Your task to perform on an android device: Go to calendar. Show me events next week Image 0: 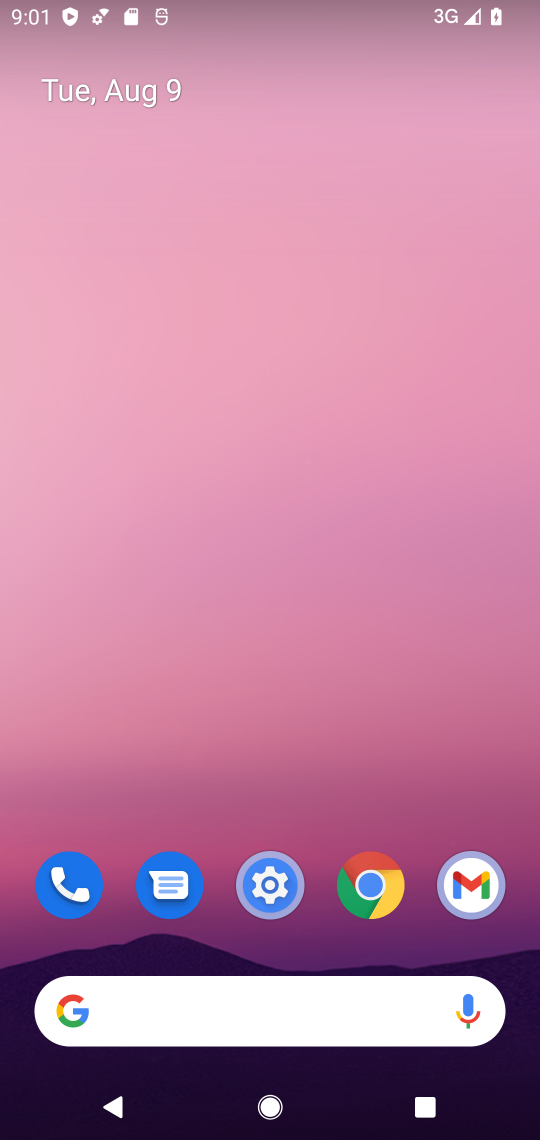
Step 0: press home button
Your task to perform on an android device: Go to calendar. Show me events next week Image 1: 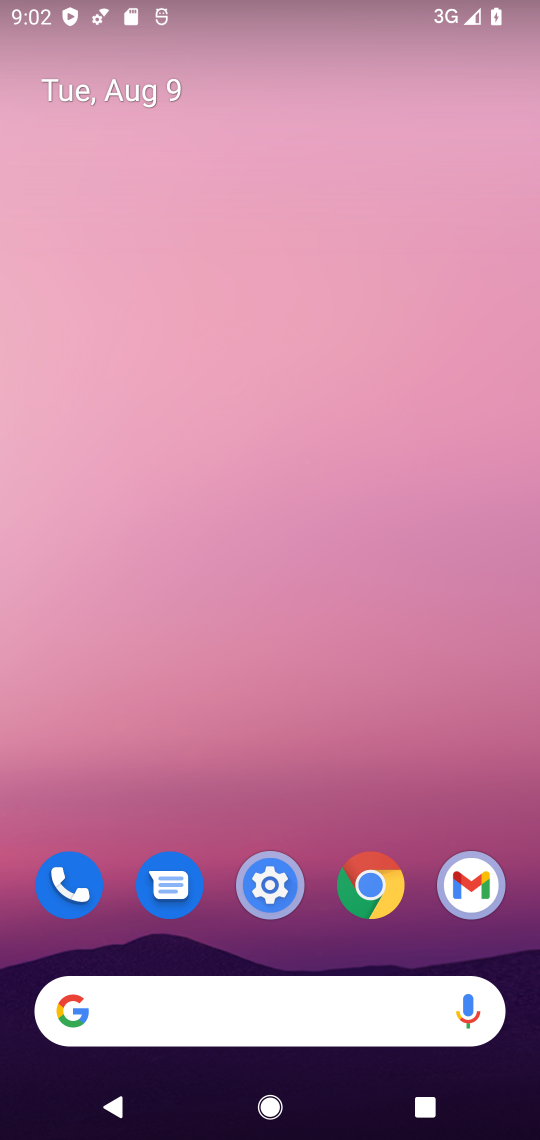
Step 1: drag from (292, 712) to (283, 133)
Your task to perform on an android device: Go to calendar. Show me events next week Image 2: 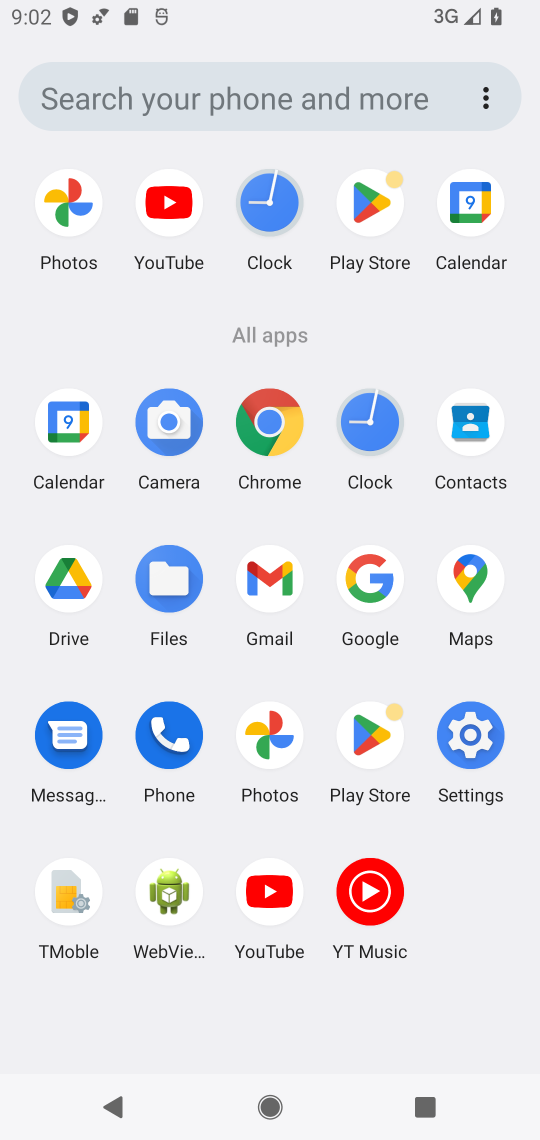
Step 2: click (464, 196)
Your task to perform on an android device: Go to calendar. Show me events next week Image 3: 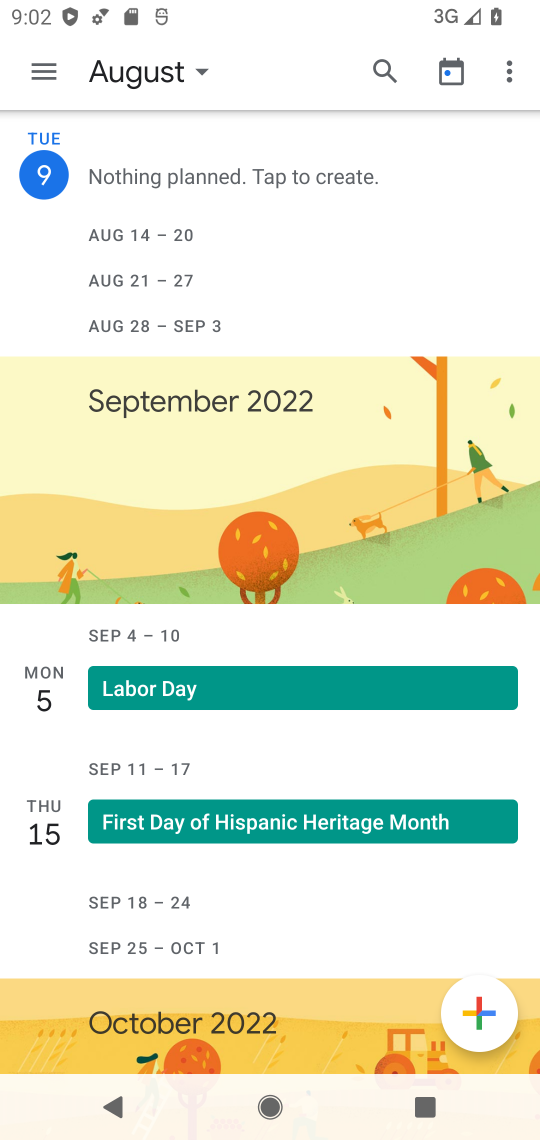
Step 3: click (44, 61)
Your task to perform on an android device: Go to calendar. Show me events next week Image 4: 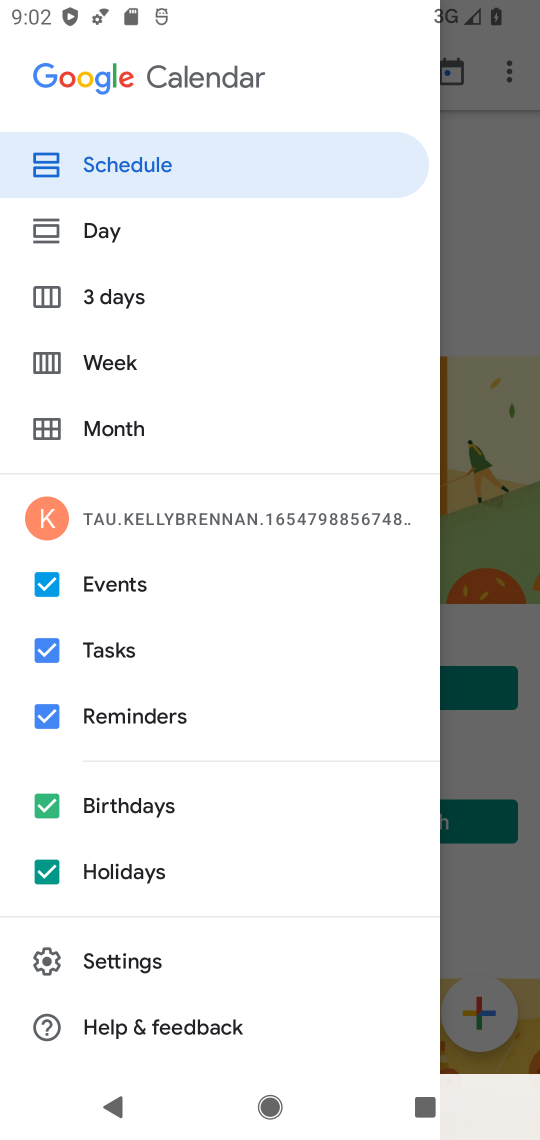
Step 4: click (44, 862)
Your task to perform on an android device: Go to calendar. Show me events next week Image 5: 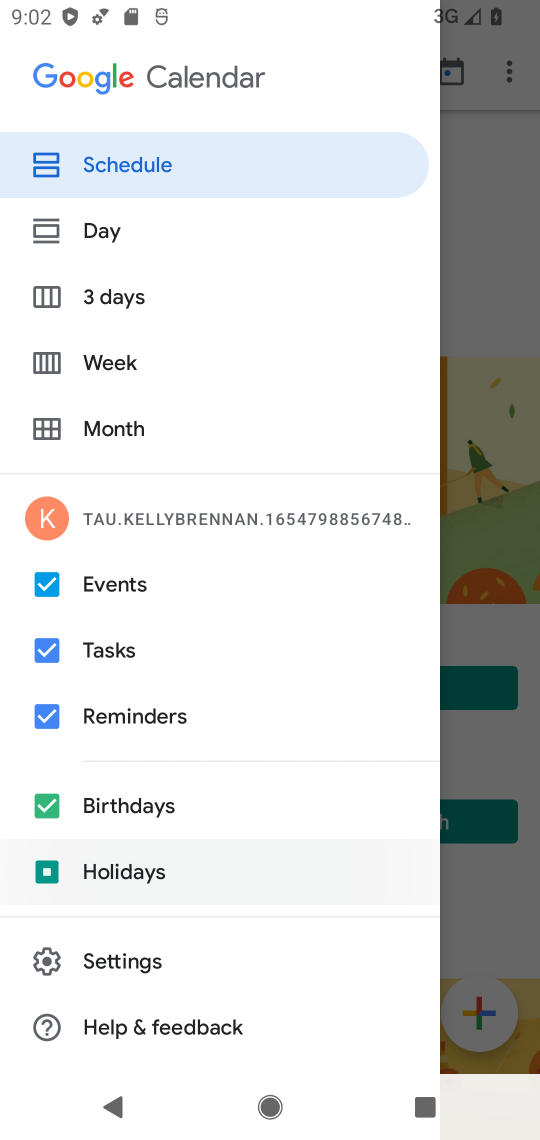
Step 5: click (41, 807)
Your task to perform on an android device: Go to calendar. Show me events next week Image 6: 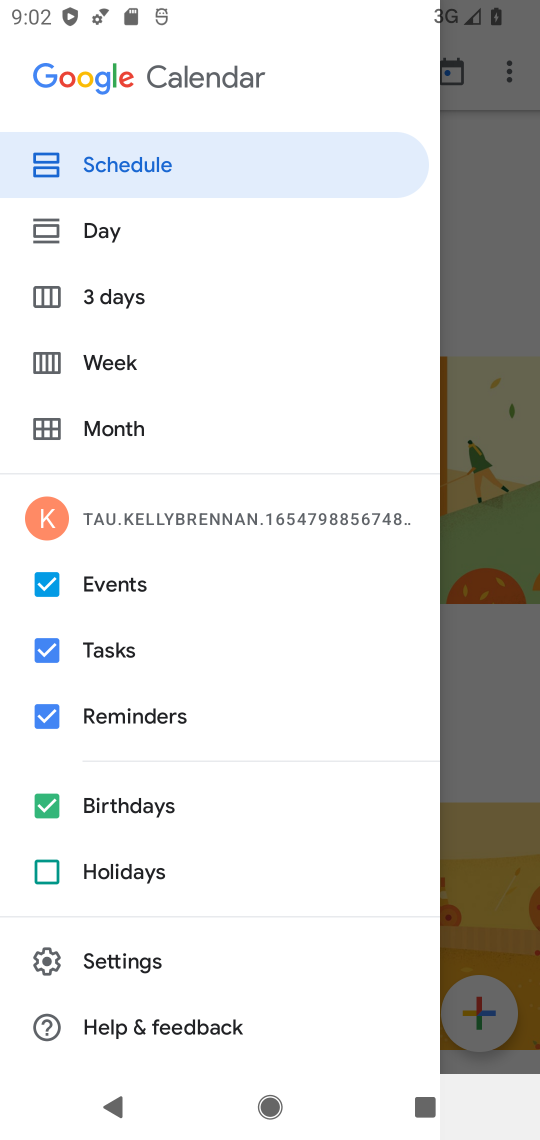
Step 6: click (50, 717)
Your task to perform on an android device: Go to calendar. Show me events next week Image 7: 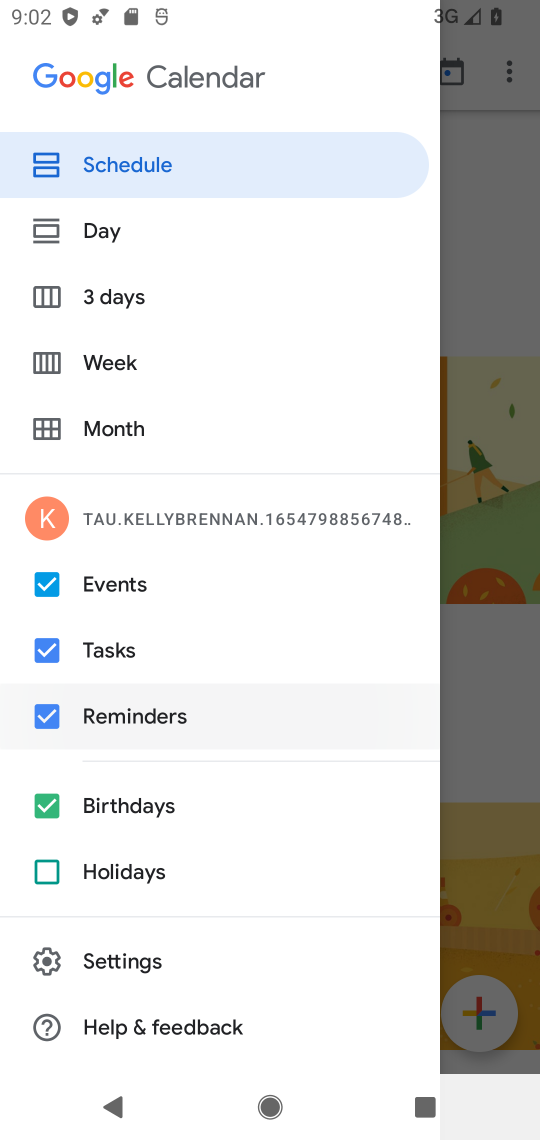
Step 7: click (44, 648)
Your task to perform on an android device: Go to calendar. Show me events next week Image 8: 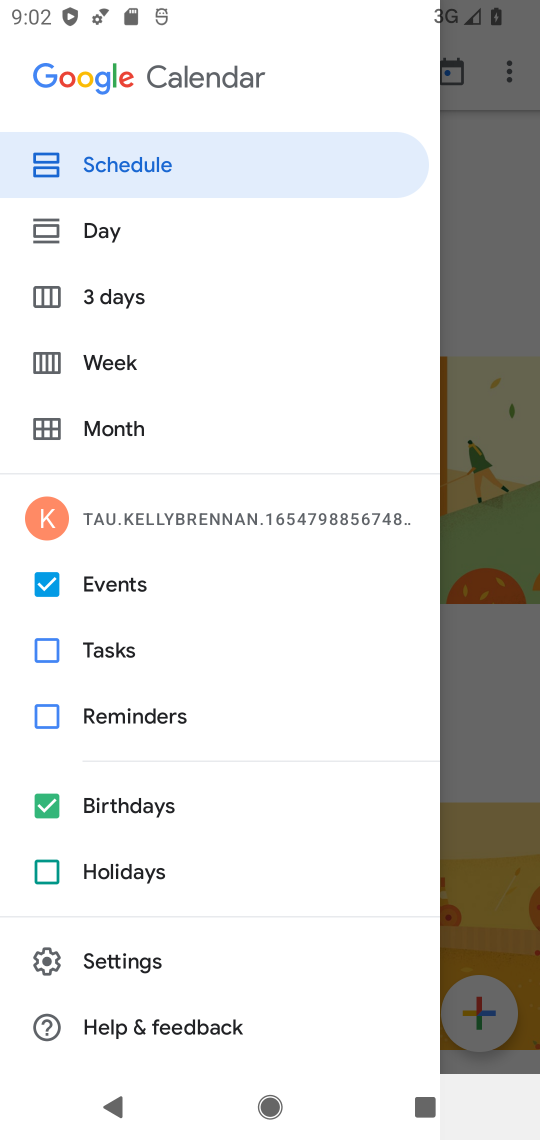
Step 8: click (45, 800)
Your task to perform on an android device: Go to calendar. Show me events next week Image 9: 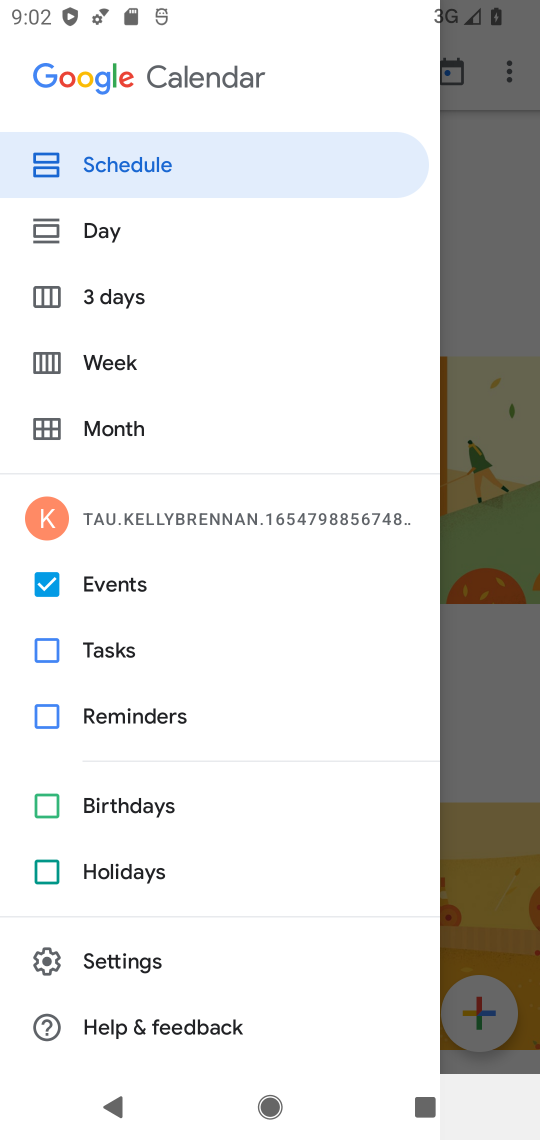
Step 9: click (75, 366)
Your task to perform on an android device: Go to calendar. Show me events next week Image 10: 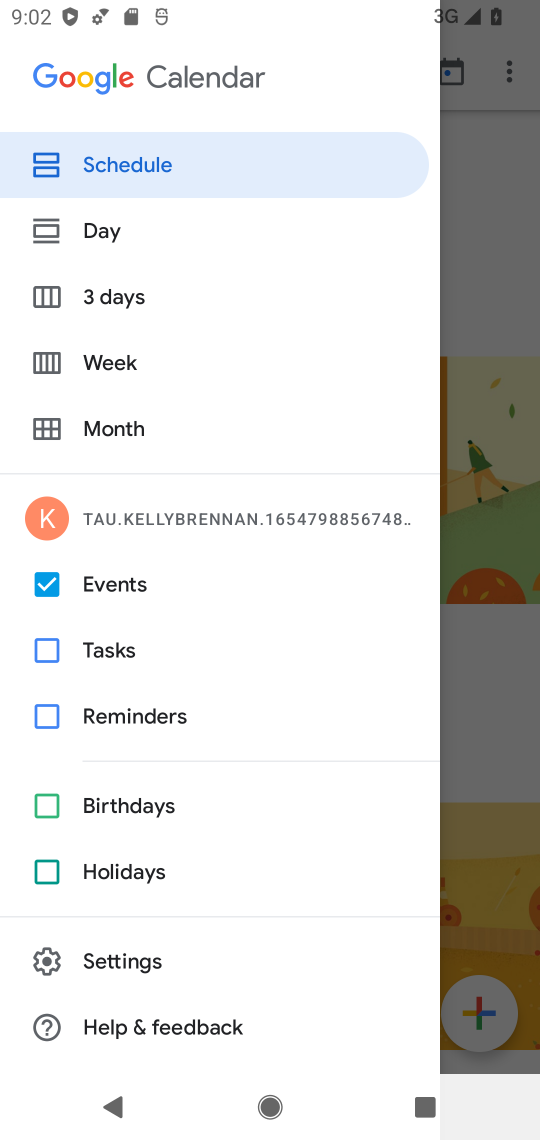
Step 10: click (138, 356)
Your task to perform on an android device: Go to calendar. Show me events next week Image 11: 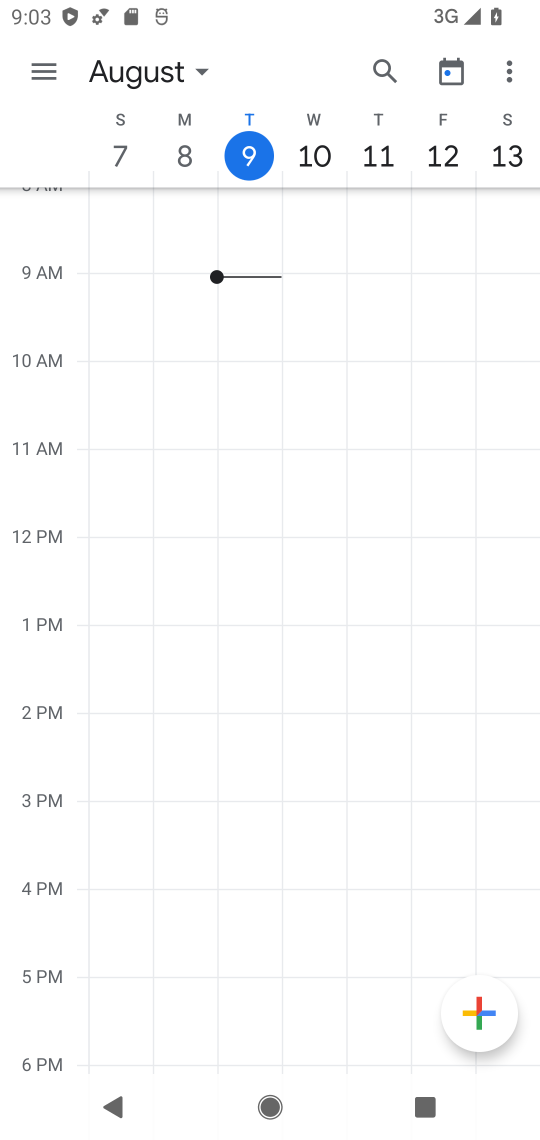
Step 11: task complete